Your task to perform on an android device: turn on bluetooth scan Image 0: 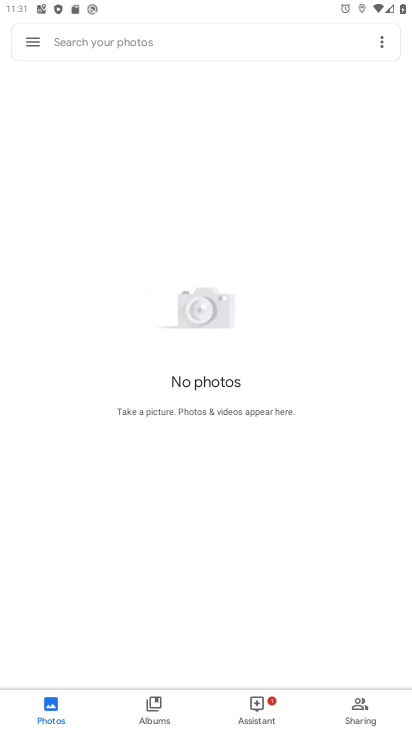
Step 0: press home button
Your task to perform on an android device: turn on bluetooth scan Image 1: 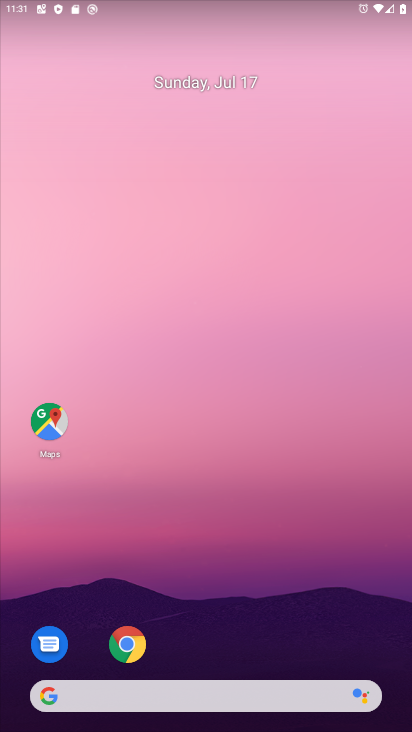
Step 1: drag from (236, 631) to (244, 127)
Your task to perform on an android device: turn on bluetooth scan Image 2: 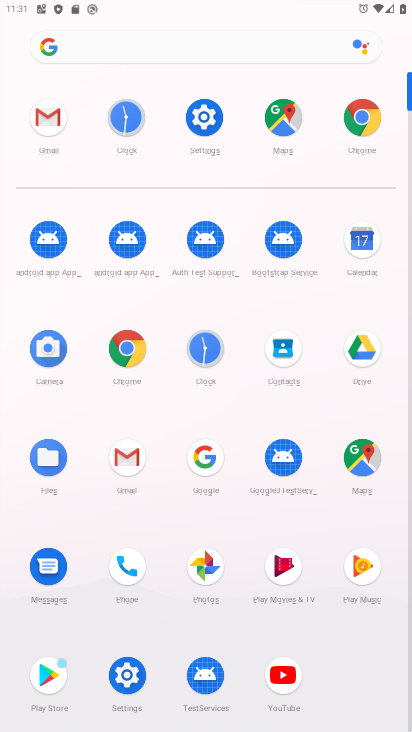
Step 2: click (203, 121)
Your task to perform on an android device: turn on bluetooth scan Image 3: 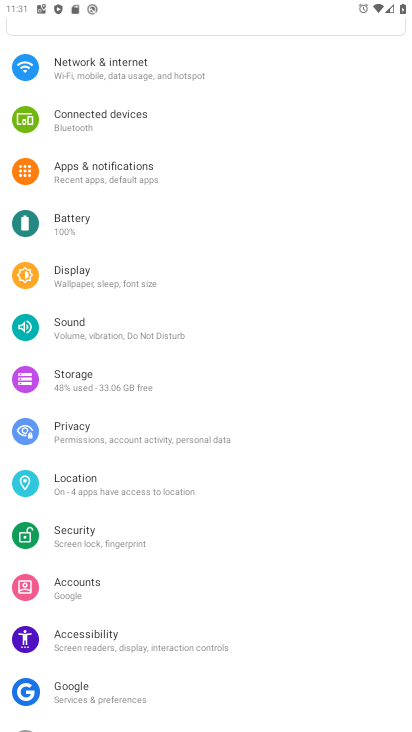
Step 3: click (85, 485)
Your task to perform on an android device: turn on bluetooth scan Image 4: 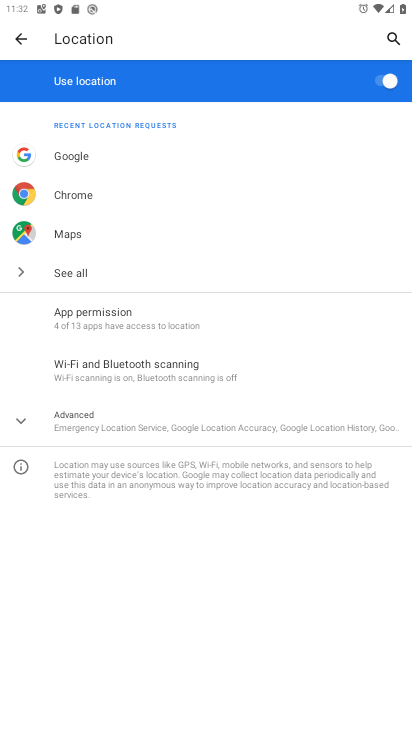
Step 4: click (133, 381)
Your task to perform on an android device: turn on bluetooth scan Image 5: 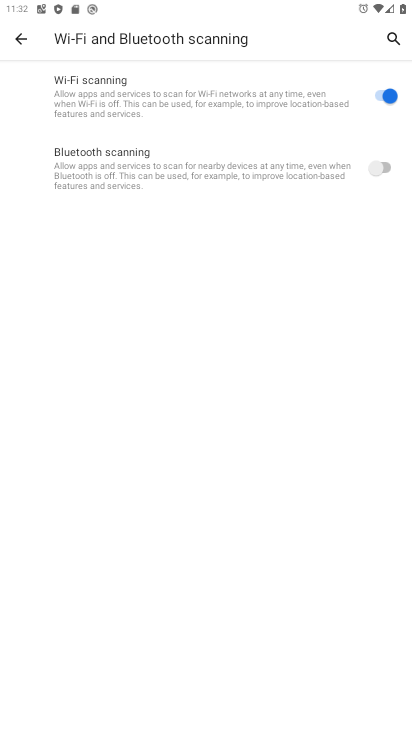
Step 5: click (371, 161)
Your task to perform on an android device: turn on bluetooth scan Image 6: 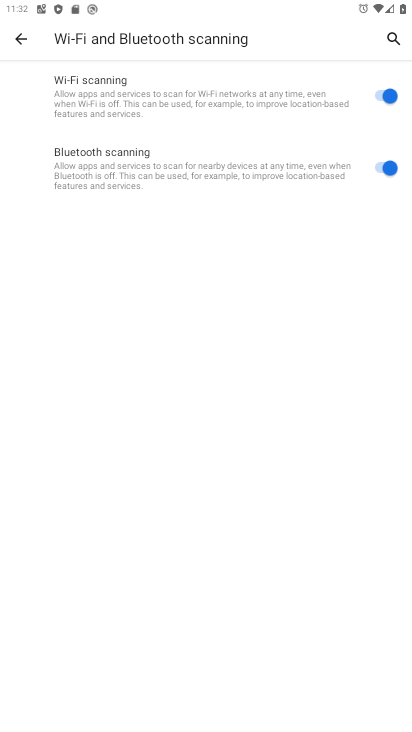
Step 6: task complete